Your task to perform on an android device: Go to sound settings Image 0: 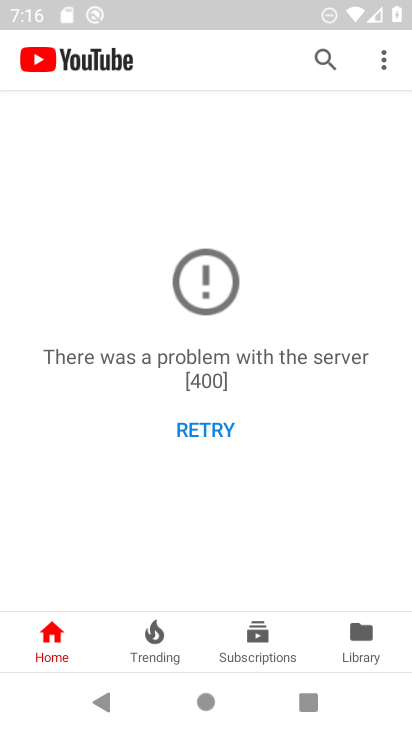
Step 0: press home button
Your task to perform on an android device: Go to sound settings Image 1: 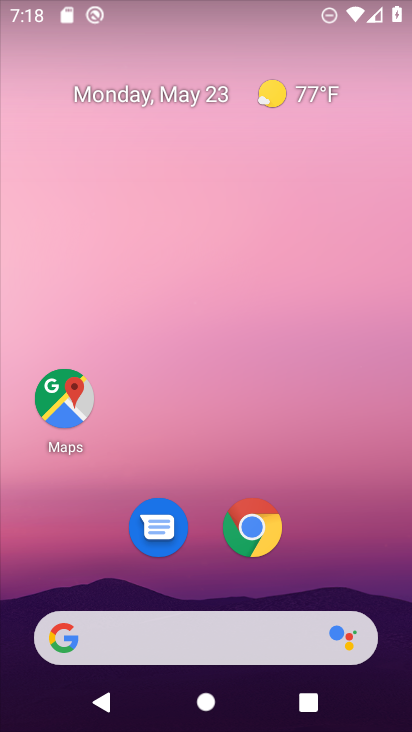
Step 1: drag from (338, 649) to (357, 149)
Your task to perform on an android device: Go to sound settings Image 2: 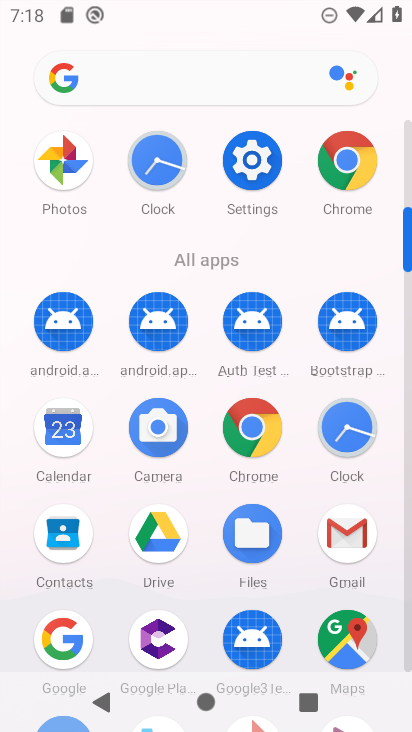
Step 2: click (242, 149)
Your task to perform on an android device: Go to sound settings Image 3: 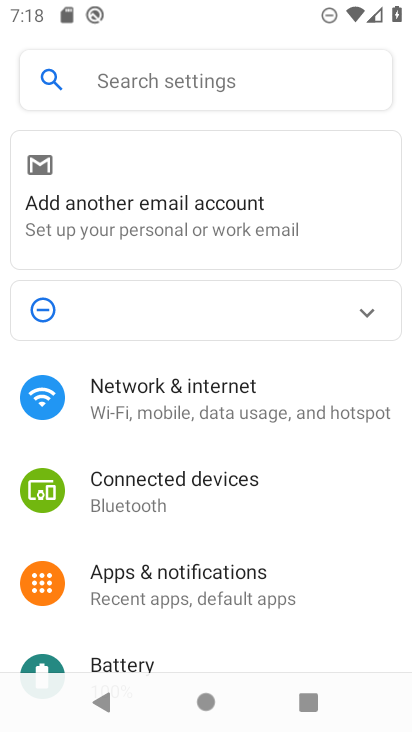
Step 3: click (148, 80)
Your task to perform on an android device: Go to sound settings Image 4: 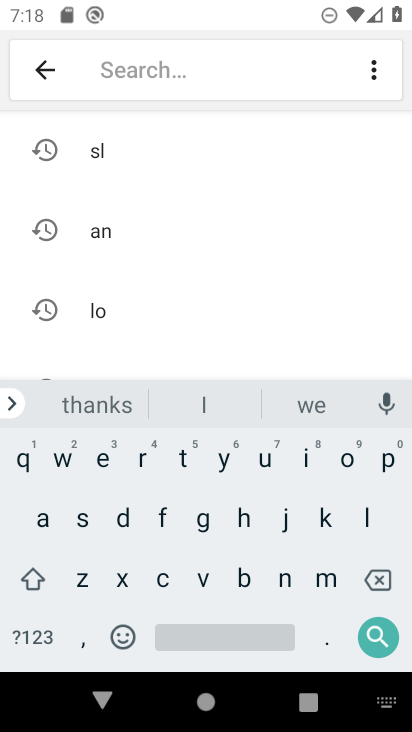
Step 4: click (83, 521)
Your task to perform on an android device: Go to sound settings Image 5: 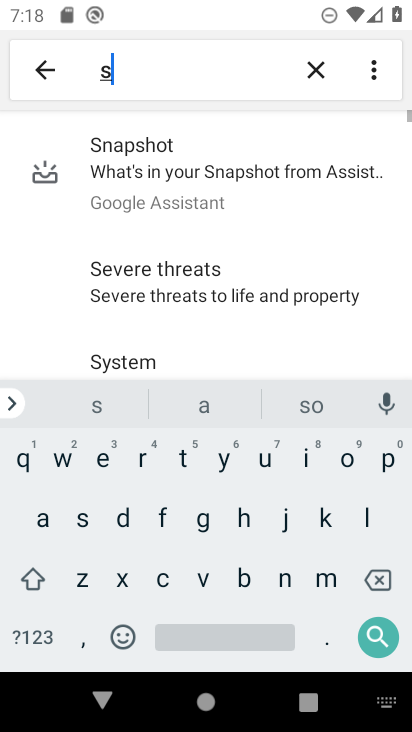
Step 5: click (342, 456)
Your task to perform on an android device: Go to sound settings Image 6: 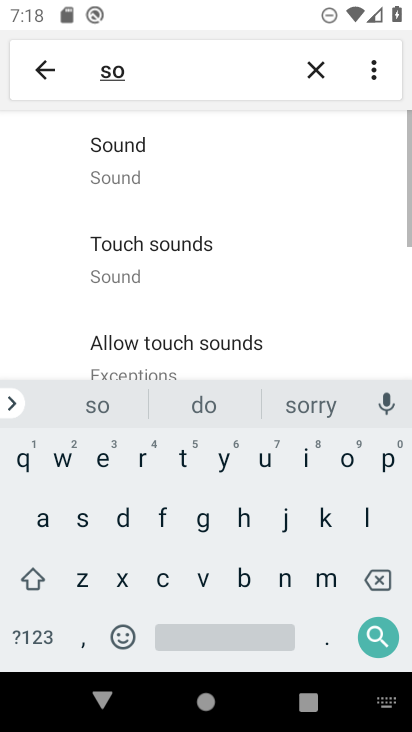
Step 6: click (171, 164)
Your task to perform on an android device: Go to sound settings Image 7: 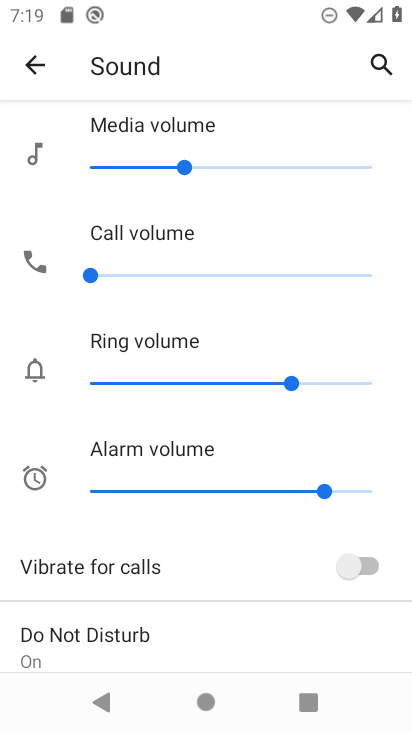
Step 7: task complete